Your task to perform on an android device: delete the emails in spam in the gmail app Image 0: 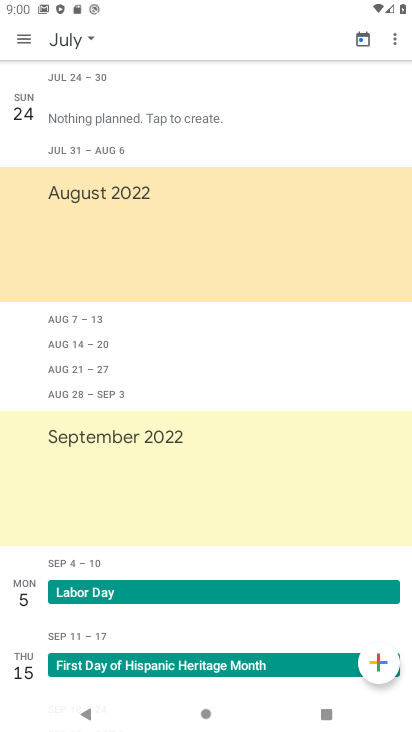
Step 0: press home button
Your task to perform on an android device: delete the emails in spam in the gmail app Image 1: 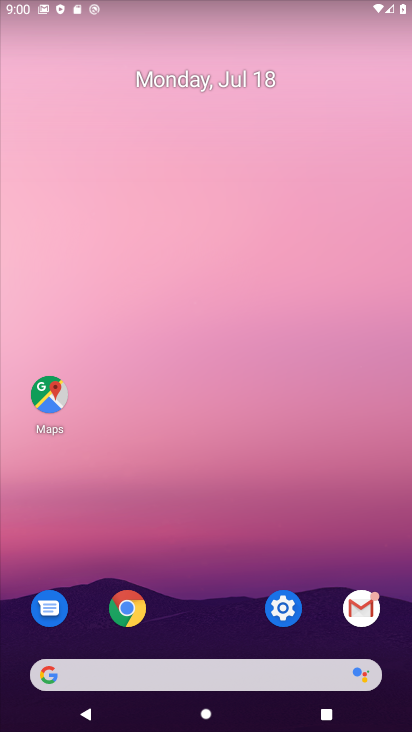
Step 1: click (360, 625)
Your task to perform on an android device: delete the emails in spam in the gmail app Image 2: 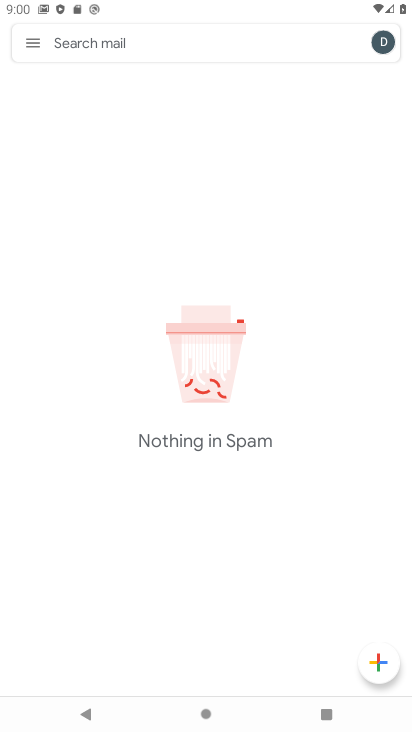
Step 2: click (33, 49)
Your task to perform on an android device: delete the emails in spam in the gmail app Image 3: 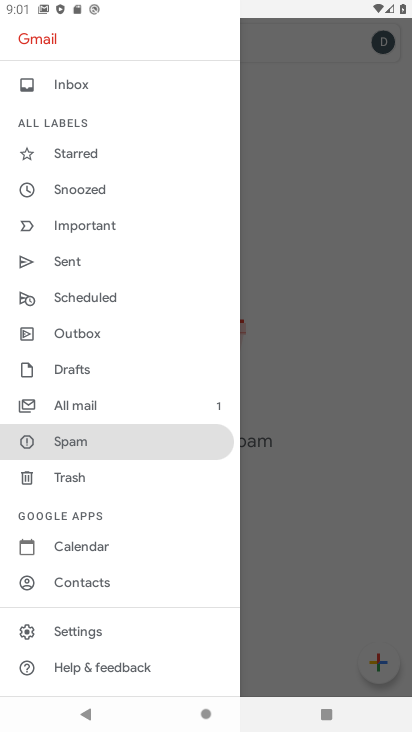
Step 3: click (90, 435)
Your task to perform on an android device: delete the emails in spam in the gmail app Image 4: 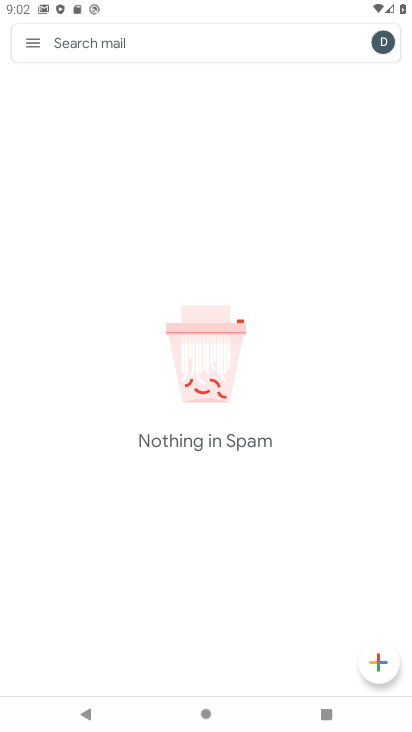
Step 4: task complete